Your task to perform on an android device: find photos in the google photos app Image 0: 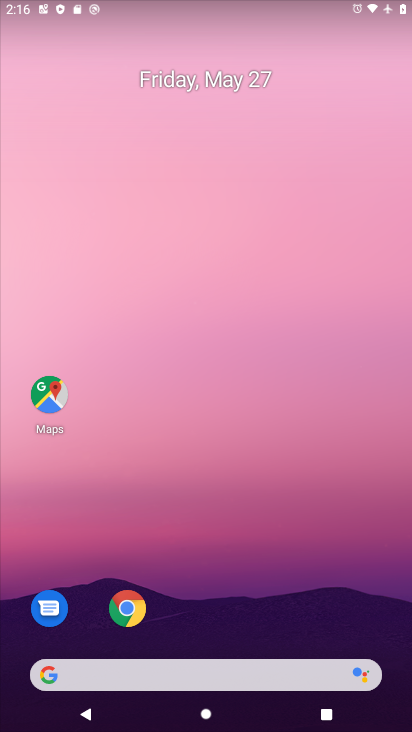
Step 0: press home button
Your task to perform on an android device: find photos in the google photos app Image 1: 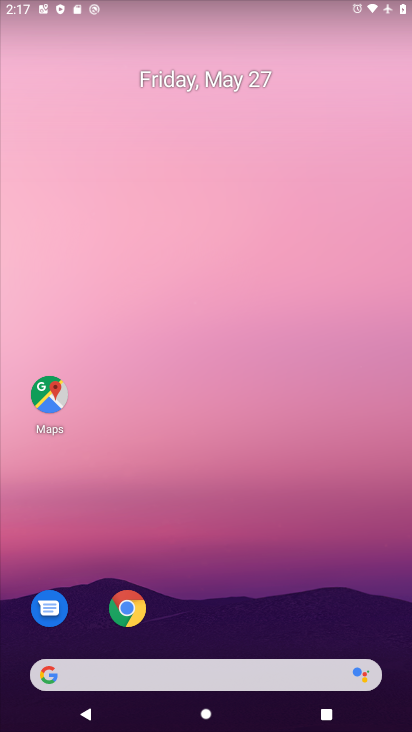
Step 1: drag from (145, 675) to (311, 126)
Your task to perform on an android device: find photos in the google photos app Image 2: 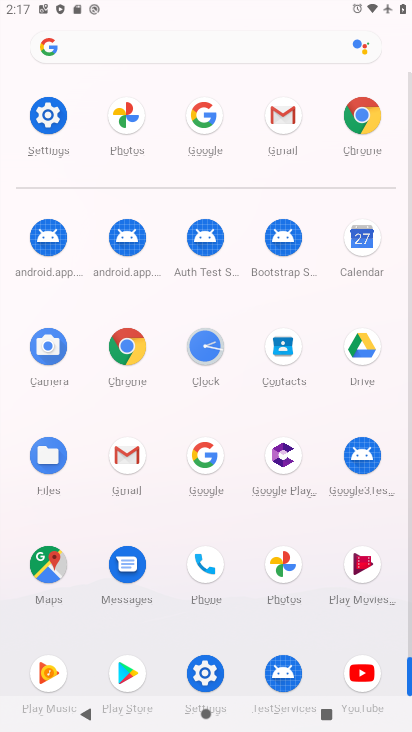
Step 2: click (280, 564)
Your task to perform on an android device: find photos in the google photos app Image 3: 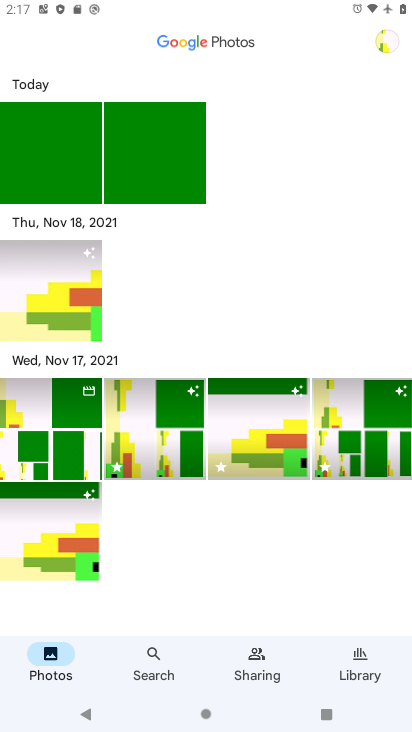
Step 3: task complete